Your task to perform on an android device: turn off picture-in-picture Image 0: 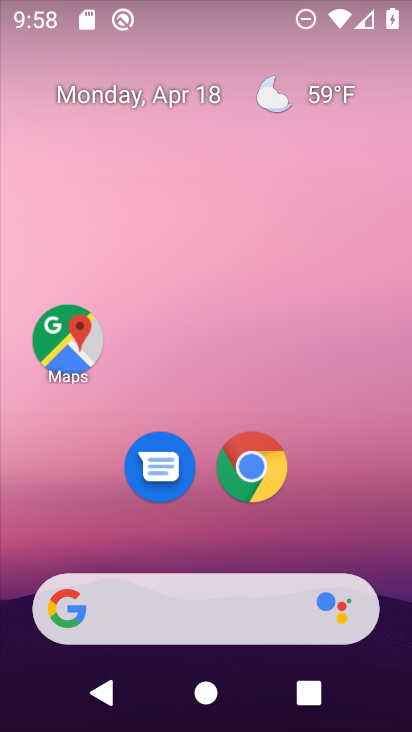
Step 0: drag from (216, 466) to (252, 19)
Your task to perform on an android device: turn off picture-in-picture Image 1: 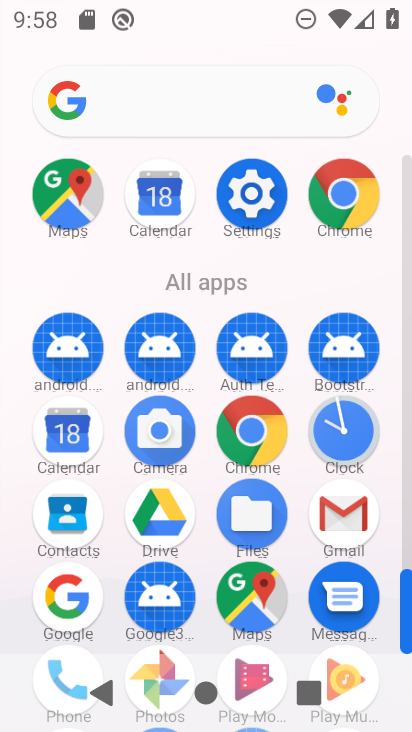
Step 1: click (246, 195)
Your task to perform on an android device: turn off picture-in-picture Image 2: 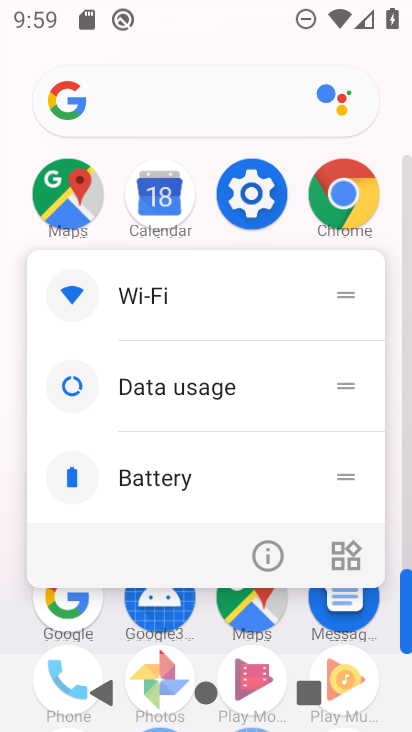
Step 2: click (256, 181)
Your task to perform on an android device: turn off picture-in-picture Image 3: 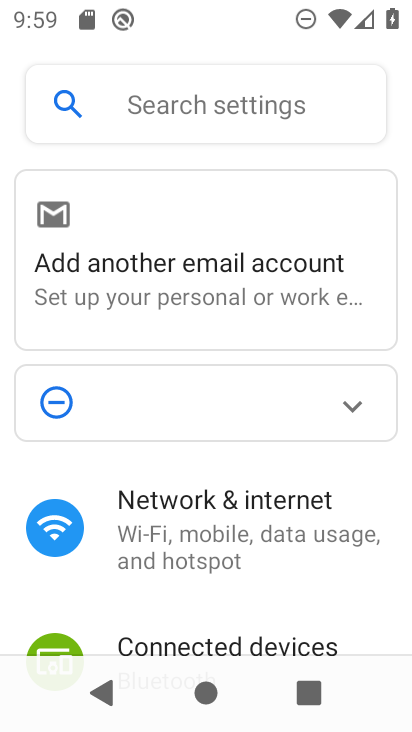
Step 3: drag from (219, 561) to (257, 109)
Your task to perform on an android device: turn off picture-in-picture Image 4: 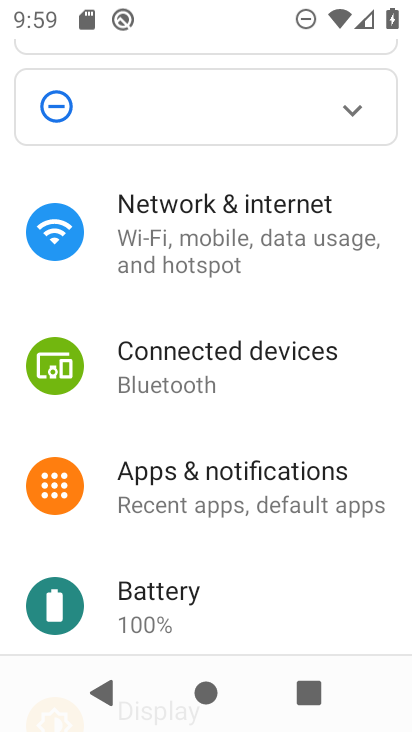
Step 4: click (221, 506)
Your task to perform on an android device: turn off picture-in-picture Image 5: 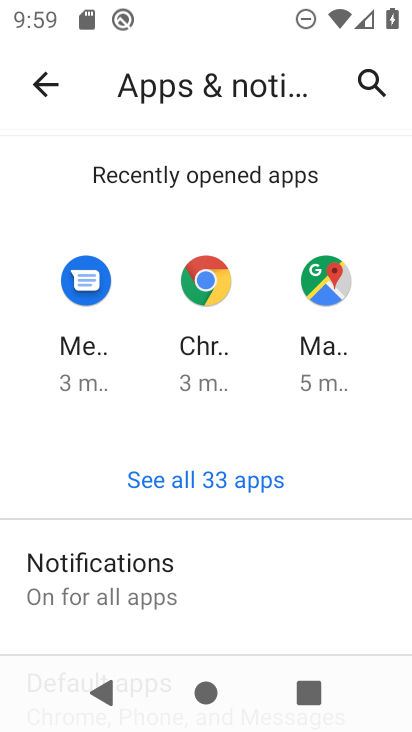
Step 5: drag from (183, 608) to (237, 58)
Your task to perform on an android device: turn off picture-in-picture Image 6: 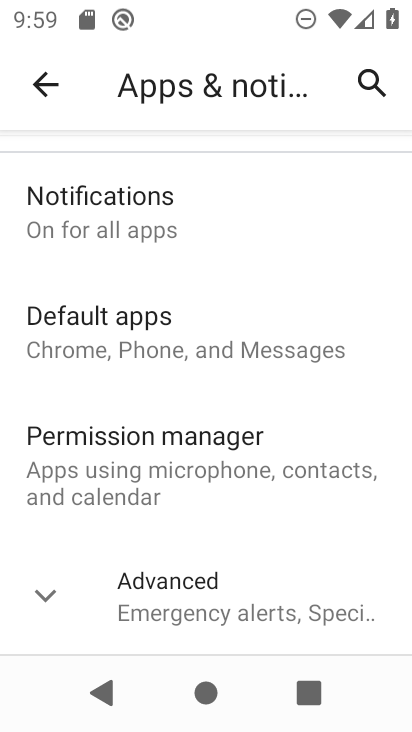
Step 6: drag from (207, 598) to (279, 84)
Your task to perform on an android device: turn off picture-in-picture Image 7: 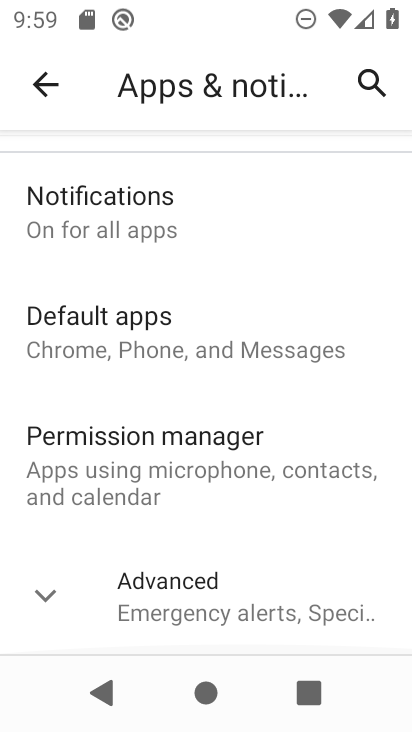
Step 7: click (194, 601)
Your task to perform on an android device: turn off picture-in-picture Image 8: 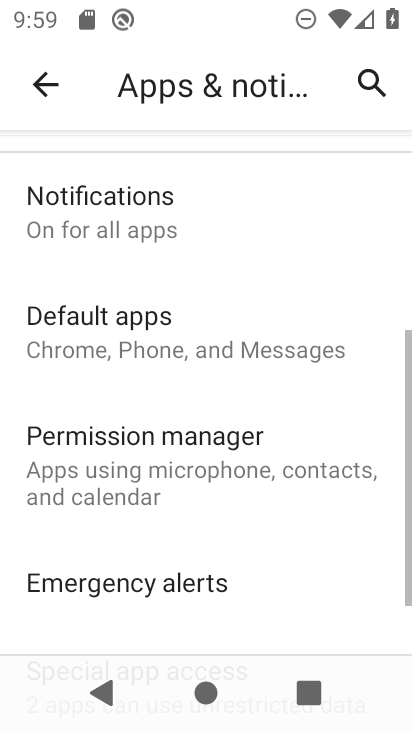
Step 8: drag from (203, 603) to (274, 33)
Your task to perform on an android device: turn off picture-in-picture Image 9: 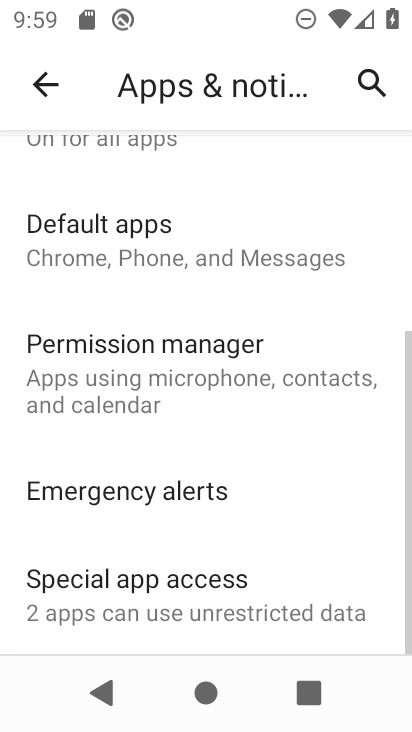
Step 9: click (154, 574)
Your task to perform on an android device: turn off picture-in-picture Image 10: 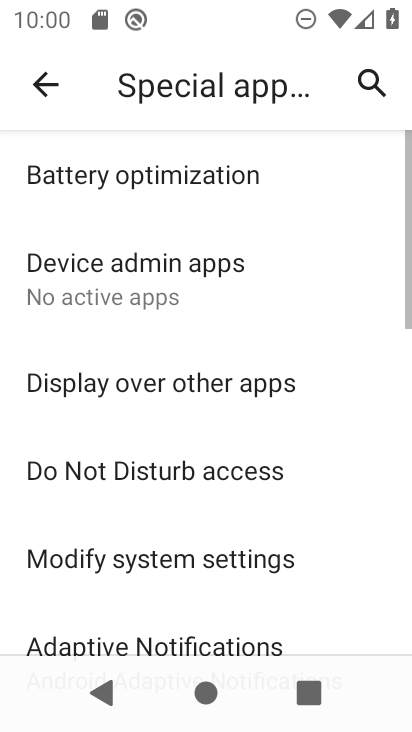
Step 10: drag from (169, 451) to (226, 26)
Your task to perform on an android device: turn off picture-in-picture Image 11: 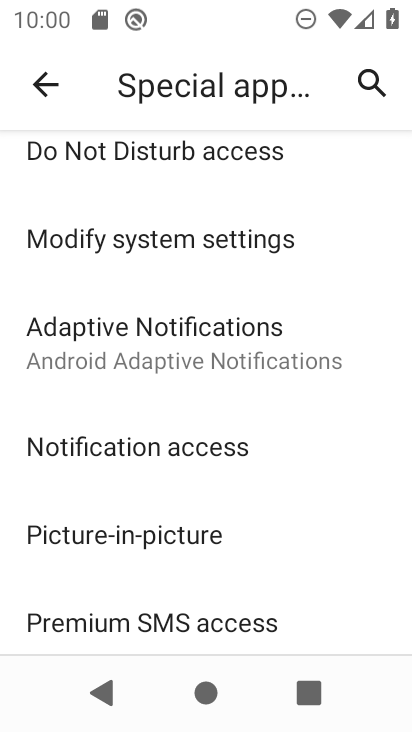
Step 11: click (138, 533)
Your task to perform on an android device: turn off picture-in-picture Image 12: 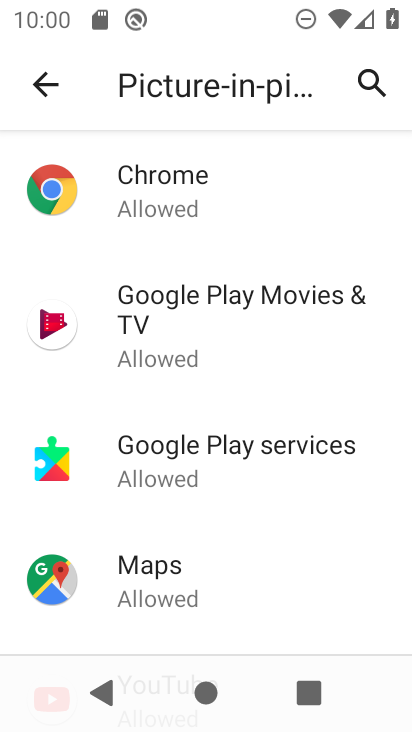
Step 12: click (196, 194)
Your task to perform on an android device: turn off picture-in-picture Image 13: 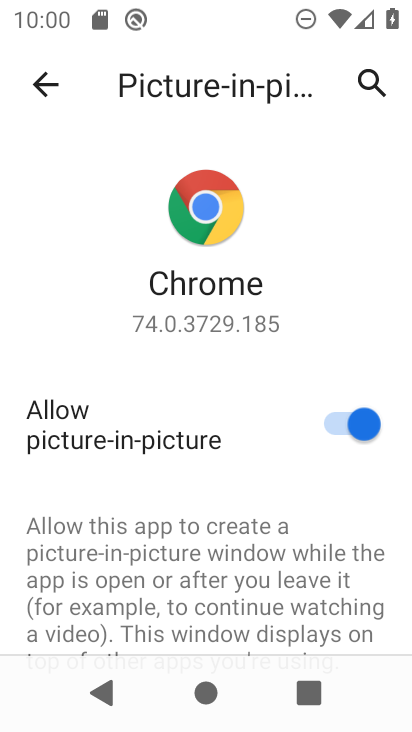
Step 13: click (346, 426)
Your task to perform on an android device: turn off picture-in-picture Image 14: 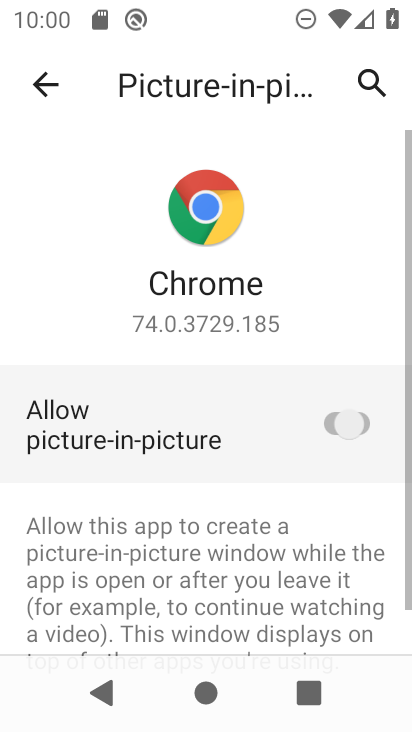
Step 14: task complete